Your task to perform on an android device: clear all cookies in the chrome app Image 0: 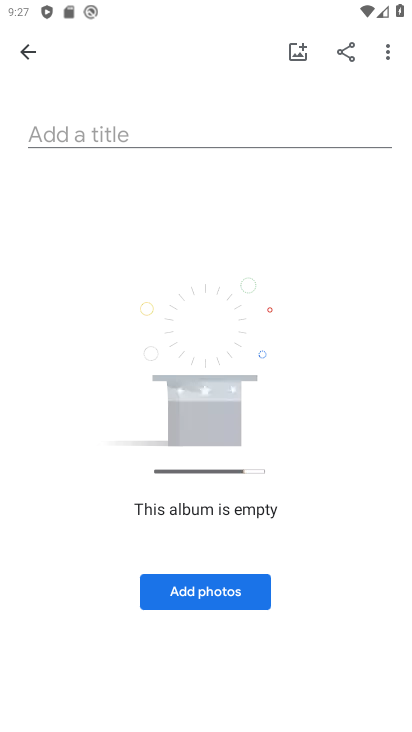
Step 0: press home button
Your task to perform on an android device: clear all cookies in the chrome app Image 1: 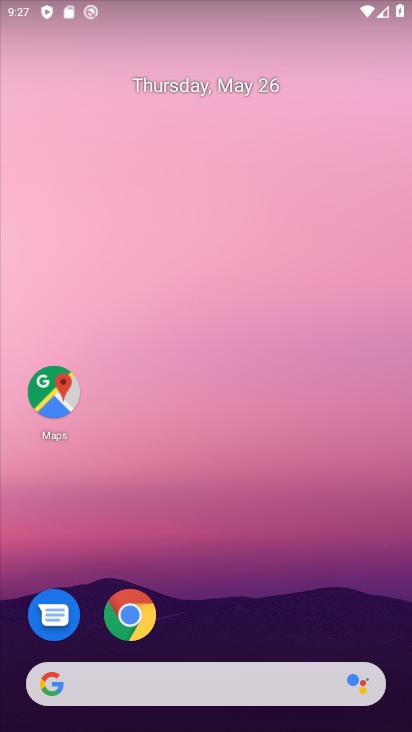
Step 1: click (132, 632)
Your task to perform on an android device: clear all cookies in the chrome app Image 2: 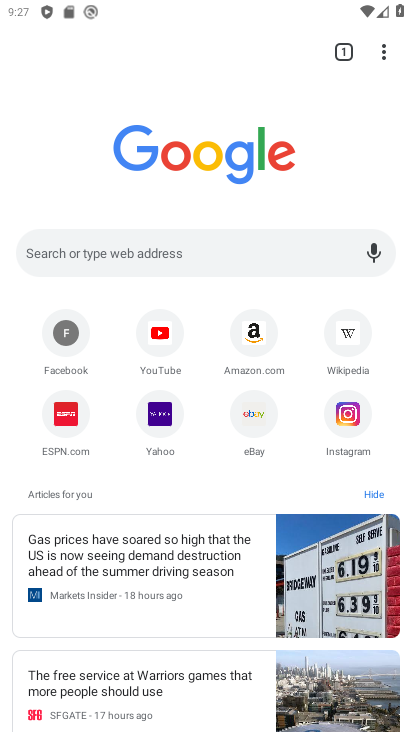
Step 2: click (378, 55)
Your task to perform on an android device: clear all cookies in the chrome app Image 3: 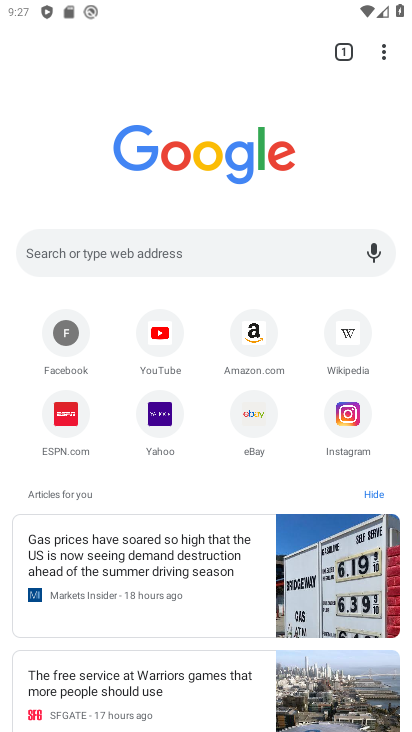
Step 3: click (385, 65)
Your task to perform on an android device: clear all cookies in the chrome app Image 4: 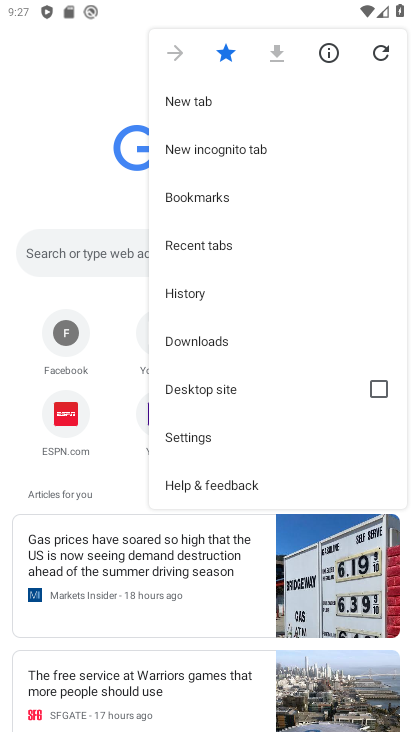
Step 4: click (189, 445)
Your task to perform on an android device: clear all cookies in the chrome app Image 5: 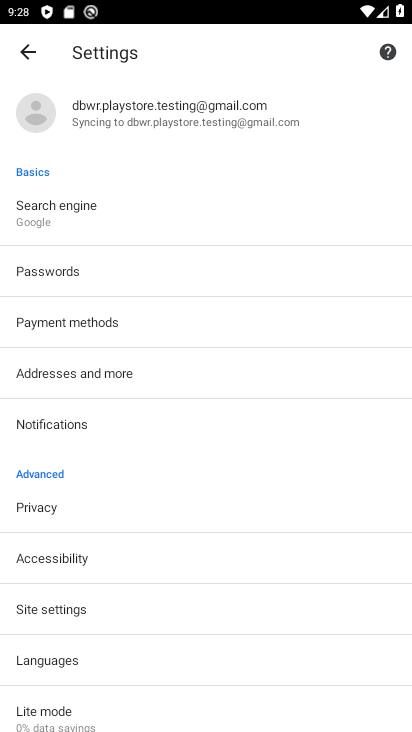
Step 5: click (93, 521)
Your task to perform on an android device: clear all cookies in the chrome app Image 6: 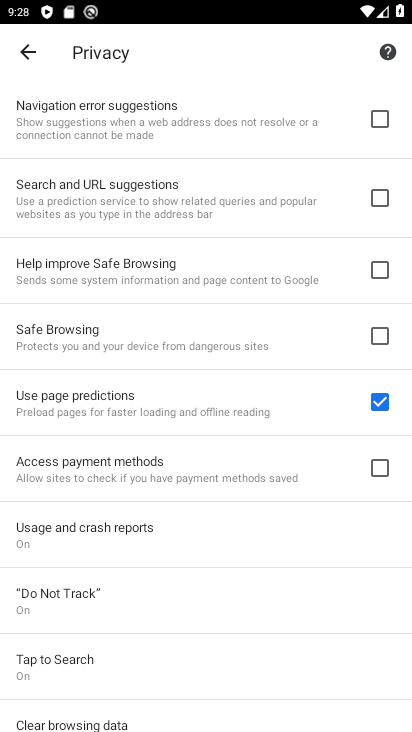
Step 6: drag from (203, 680) to (200, 273)
Your task to perform on an android device: clear all cookies in the chrome app Image 7: 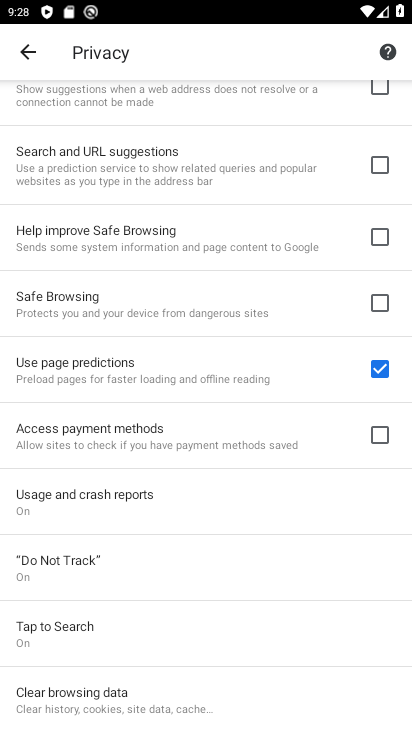
Step 7: click (140, 694)
Your task to perform on an android device: clear all cookies in the chrome app Image 8: 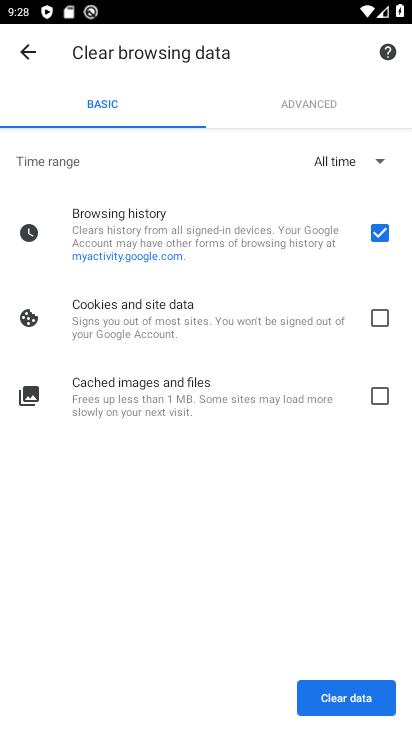
Step 8: click (381, 235)
Your task to perform on an android device: clear all cookies in the chrome app Image 9: 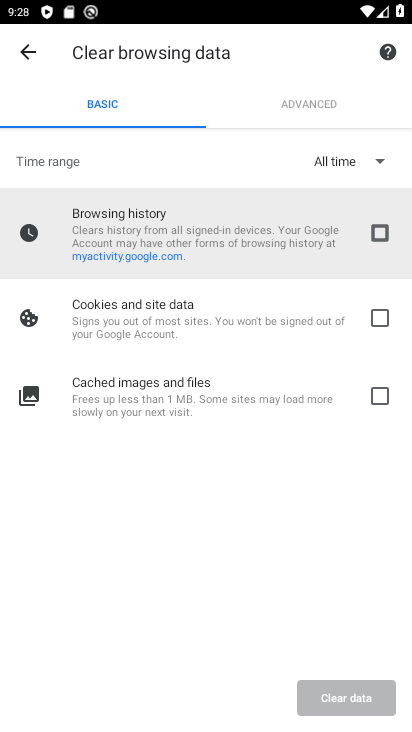
Step 9: click (380, 319)
Your task to perform on an android device: clear all cookies in the chrome app Image 10: 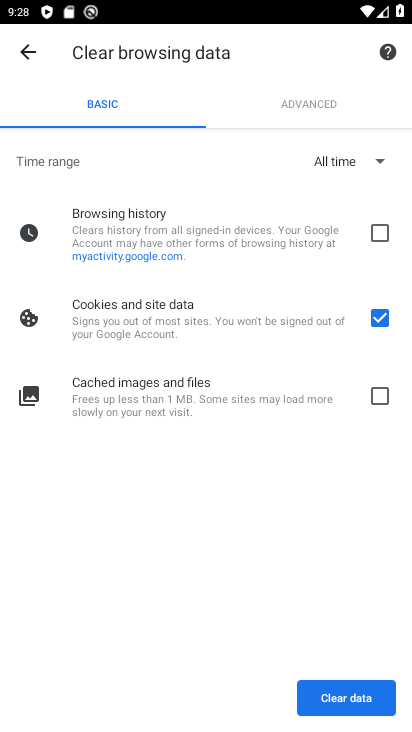
Step 10: click (358, 709)
Your task to perform on an android device: clear all cookies in the chrome app Image 11: 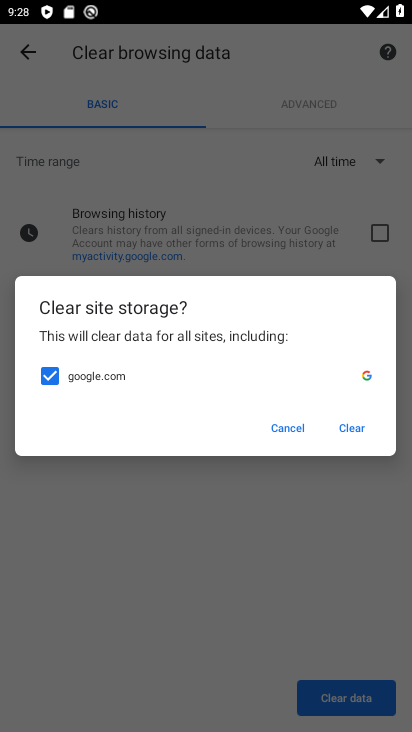
Step 11: click (357, 437)
Your task to perform on an android device: clear all cookies in the chrome app Image 12: 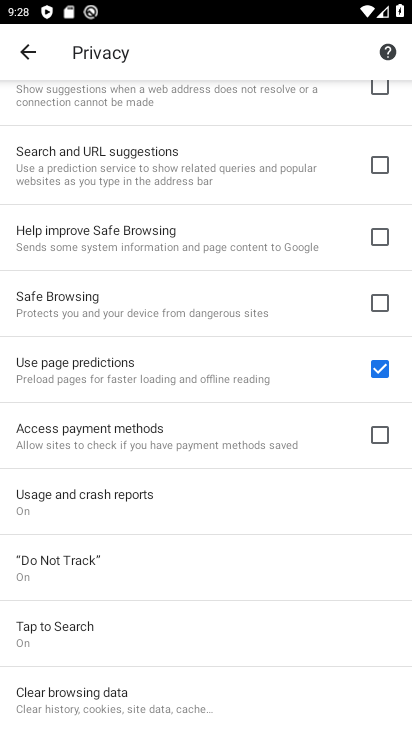
Step 12: task complete